Your task to perform on an android device: turn off javascript in the chrome app Image 0: 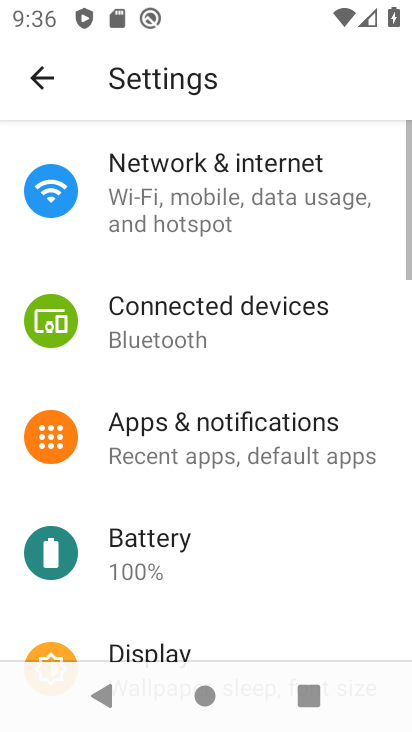
Step 0: press home button
Your task to perform on an android device: turn off javascript in the chrome app Image 1: 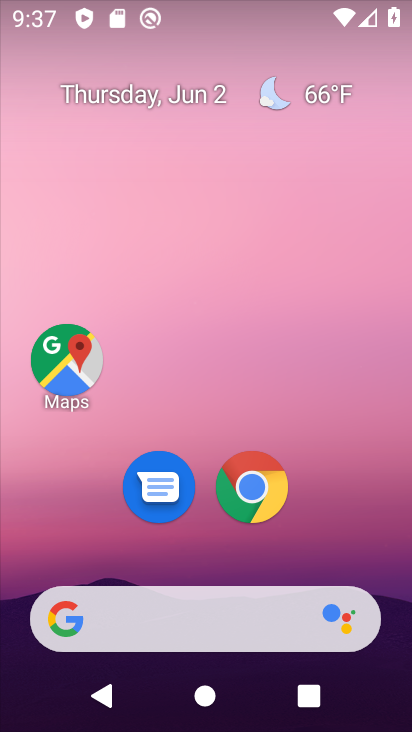
Step 1: click (255, 497)
Your task to perform on an android device: turn off javascript in the chrome app Image 2: 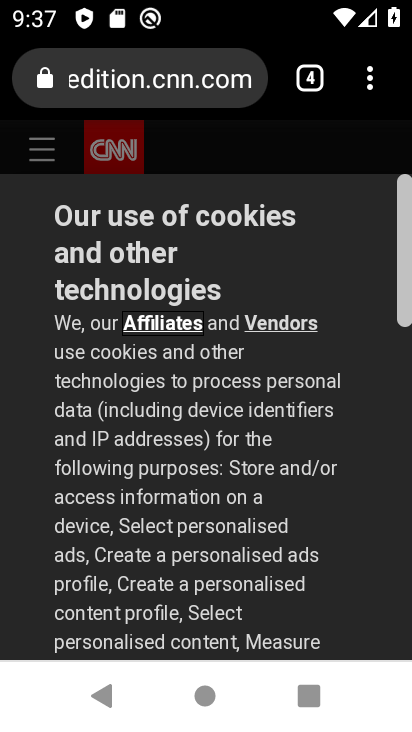
Step 2: click (370, 92)
Your task to perform on an android device: turn off javascript in the chrome app Image 3: 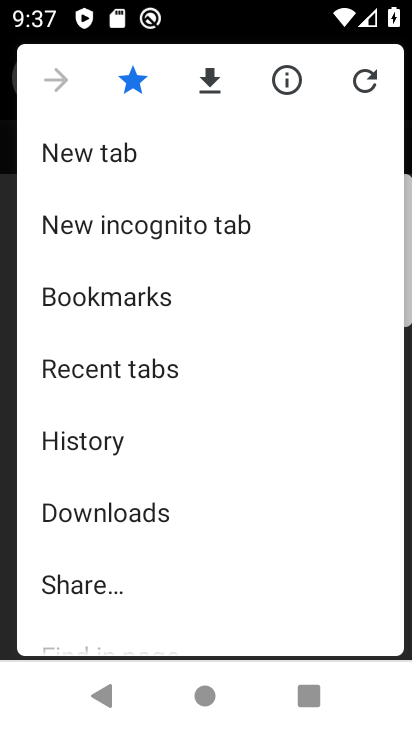
Step 3: drag from (143, 617) to (143, 126)
Your task to perform on an android device: turn off javascript in the chrome app Image 4: 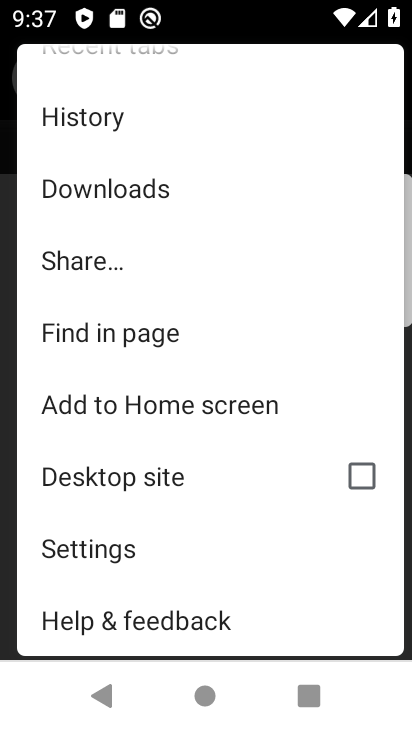
Step 4: click (93, 548)
Your task to perform on an android device: turn off javascript in the chrome app Image 5: 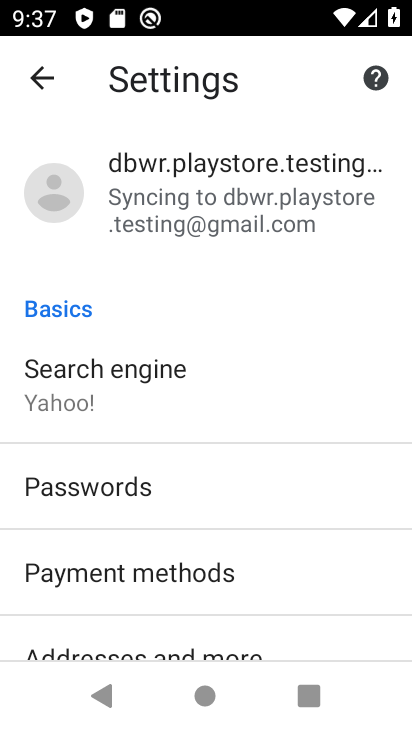
Step 5: drag from (128, 642) to (140, 217)
Your task to perform on an android device: turn off javascript in the chrome app Image 6: 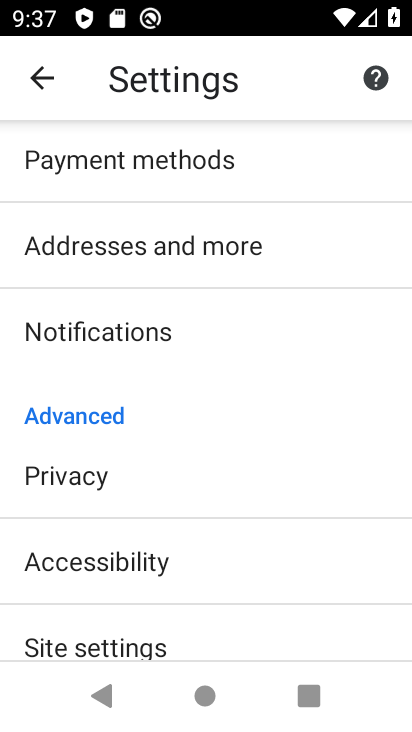
Step 6: click (97, 639)
Your task to perform on an android device: turn off javascript in the chrome app Image 7: 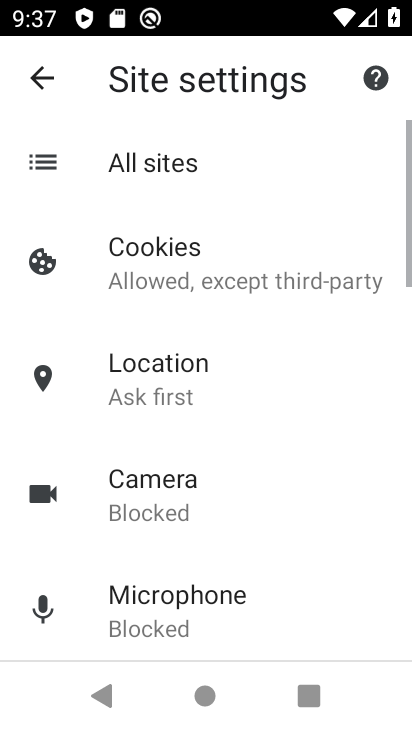
Step 7: drag from (198, 635) to (203, 157)
Your task to perform on an android device: turn off javascript in the chrome app Image 8: 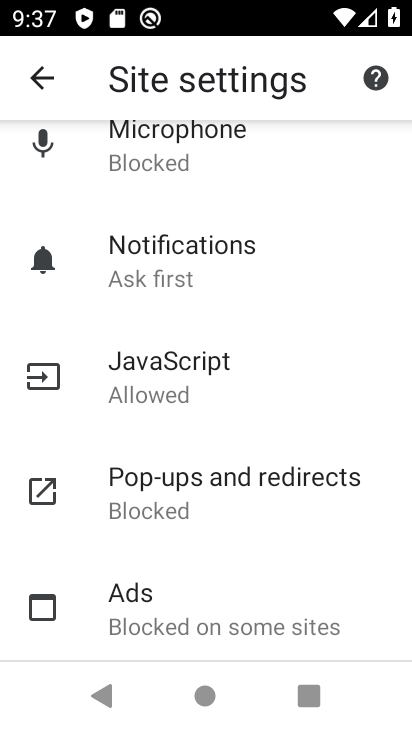
Step 8: click (159, 390)
Your task to perform on an android device: turn off javascript in the chrome app Image 9: 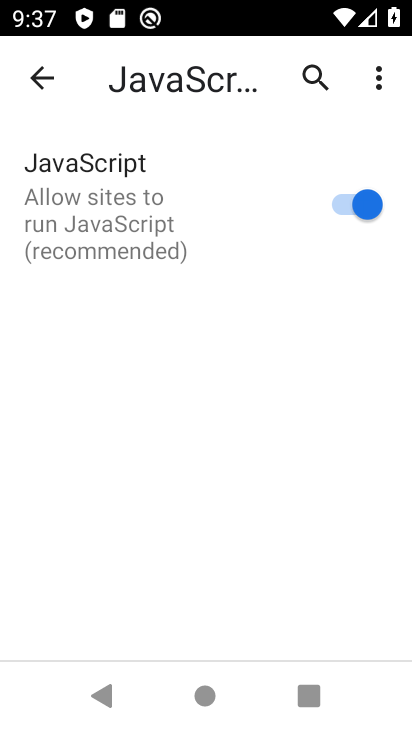
Step 9: click (344, 198)
Your task to perform on an android device: turn off javascript in the chrome app Image 10: 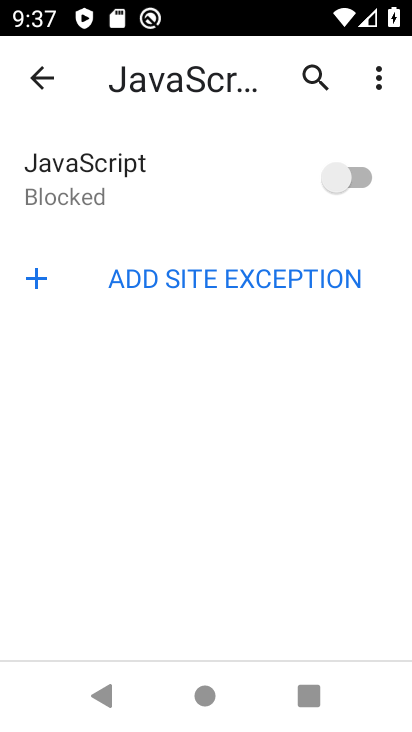
Step 10: task complete